Your task to perform on an android device: turn smart compose on in the gmail app Image 0: 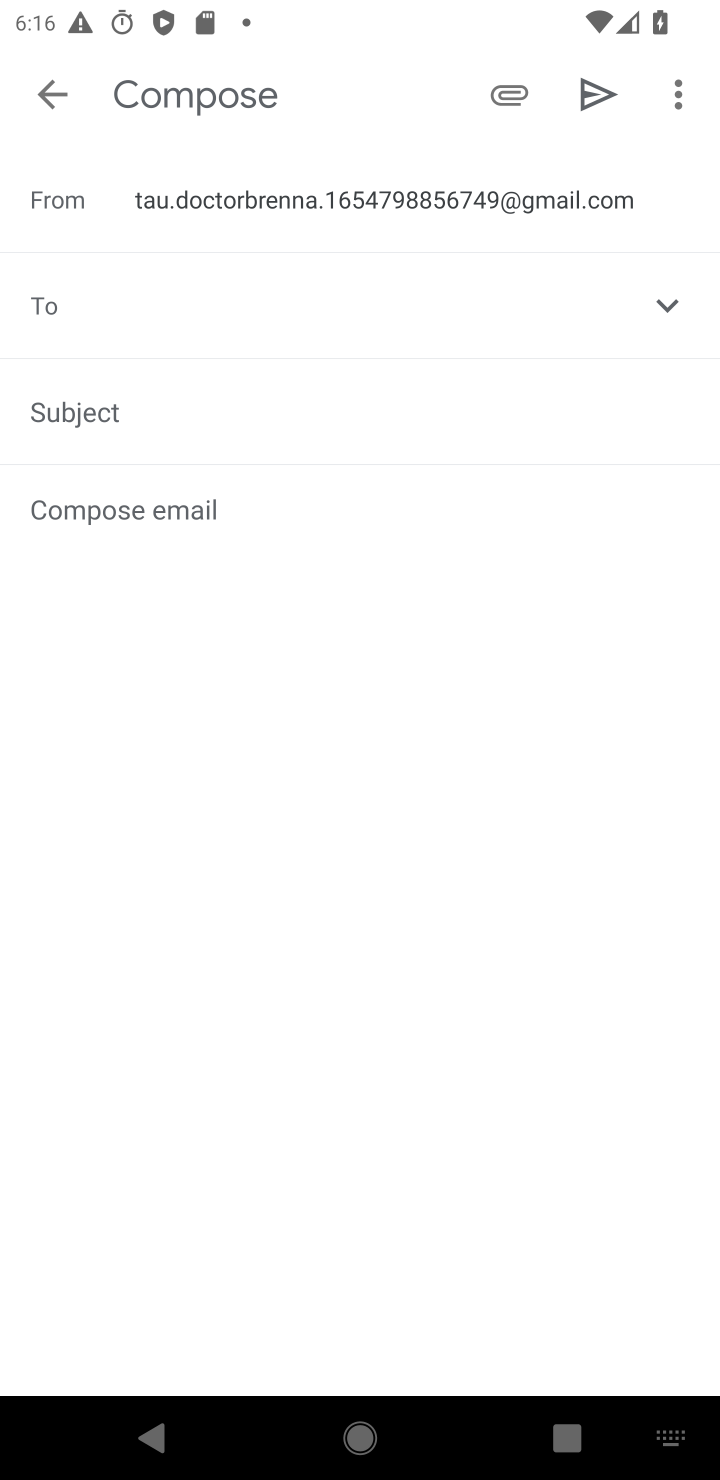
Step 0: press home button
Your task to perform on an android device: turn smart compose on in the gmail app Image 1: 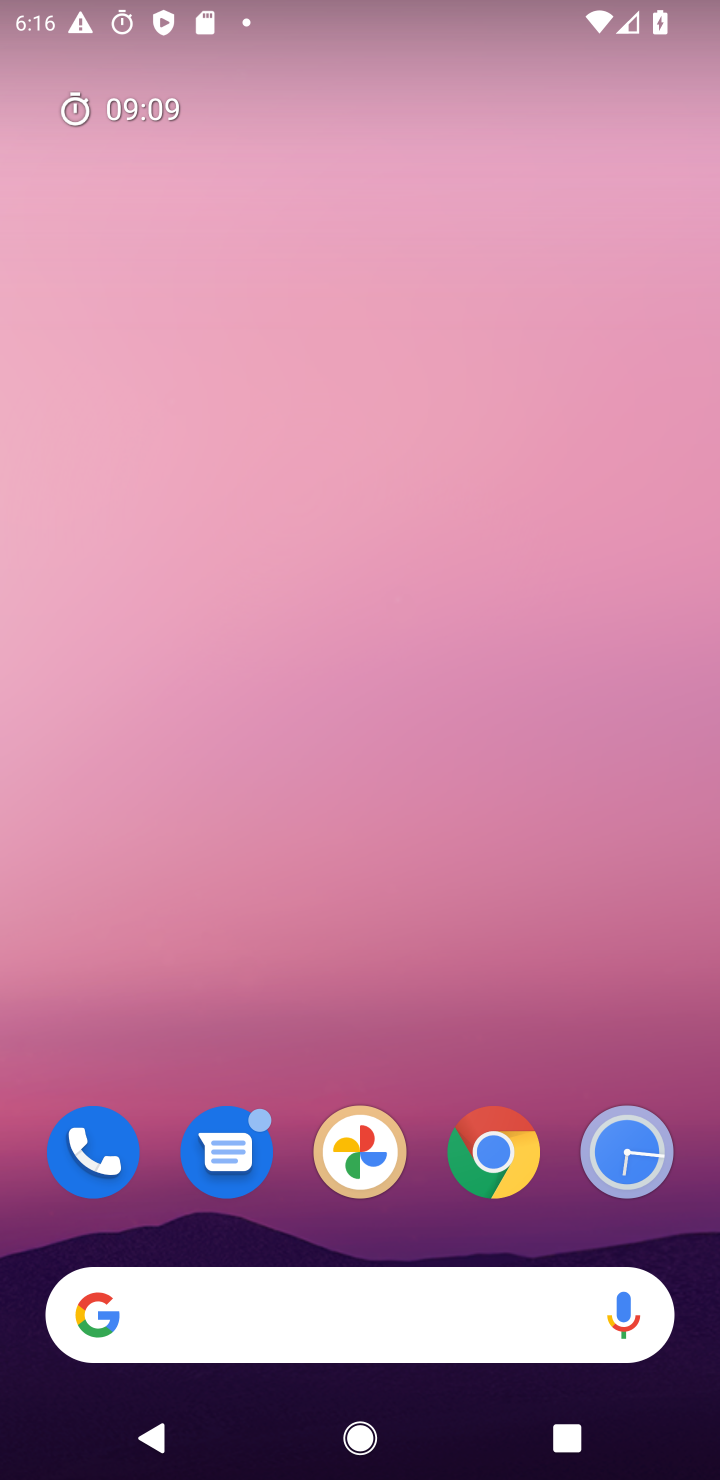
Step 1: drag from (491, 907) to (525, 29)
Your task to perform on an android device: turn smart compose on in the gmail app Image 2: 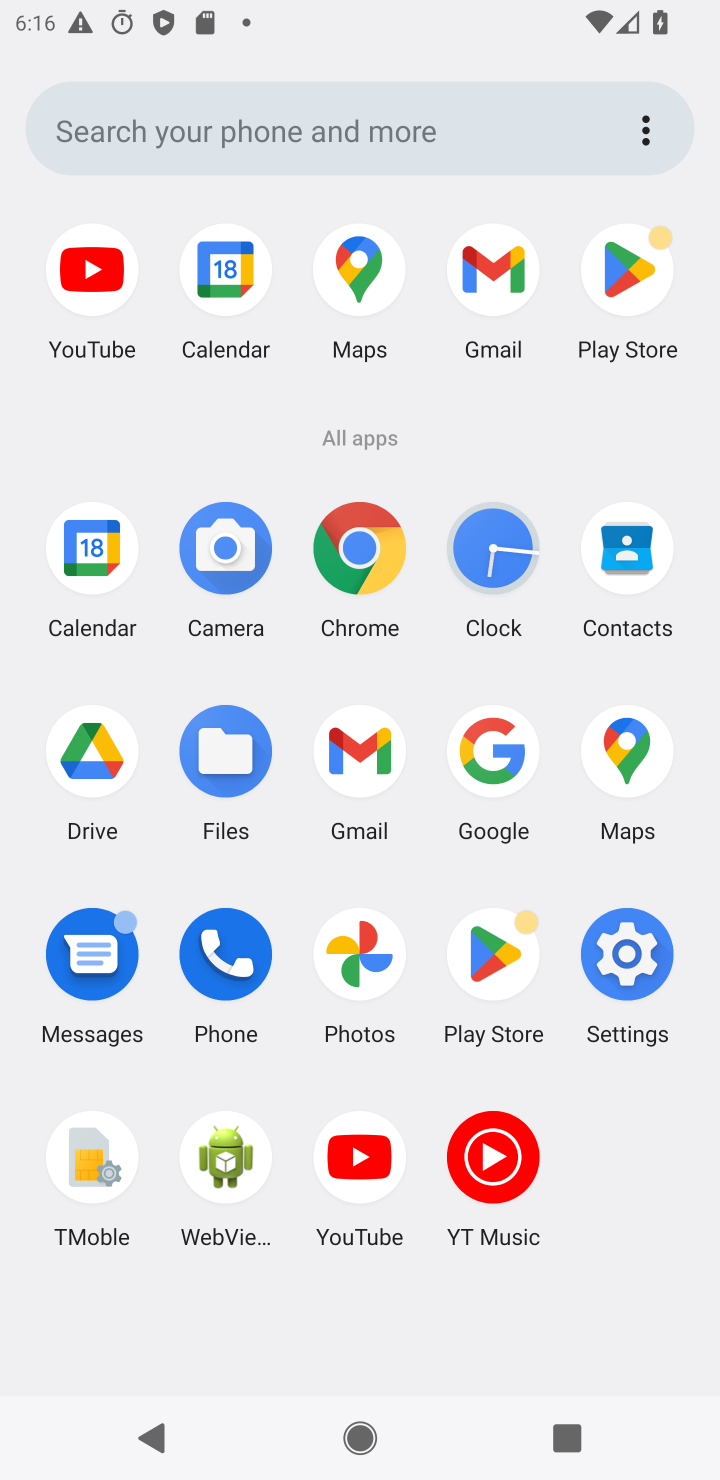
Step 2: click (353, 759)
Your task to perform on an android device: turn smart compose on in the gmail app Image 3: 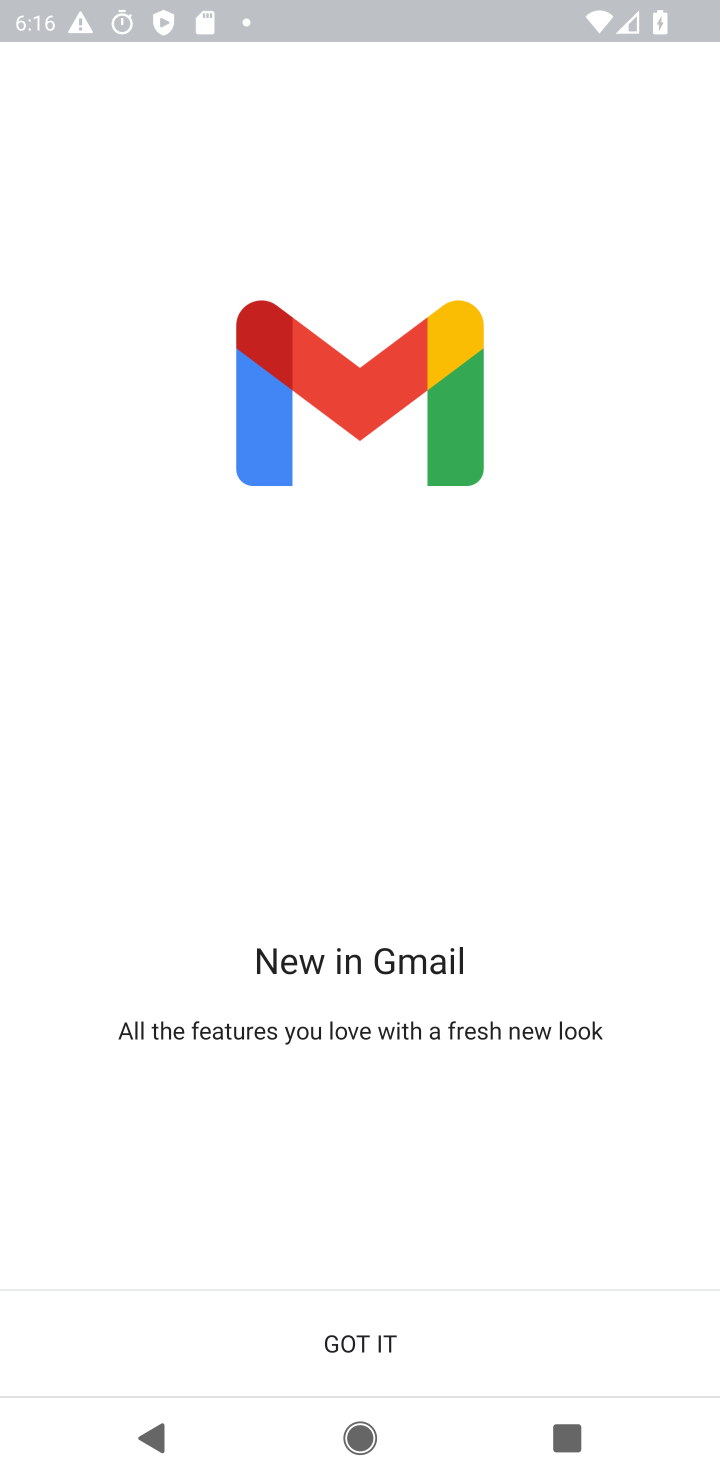
Step 3: click (343, 1334)
Your task to perform on an android device: turn smart compose on in the gmail app Image 4: 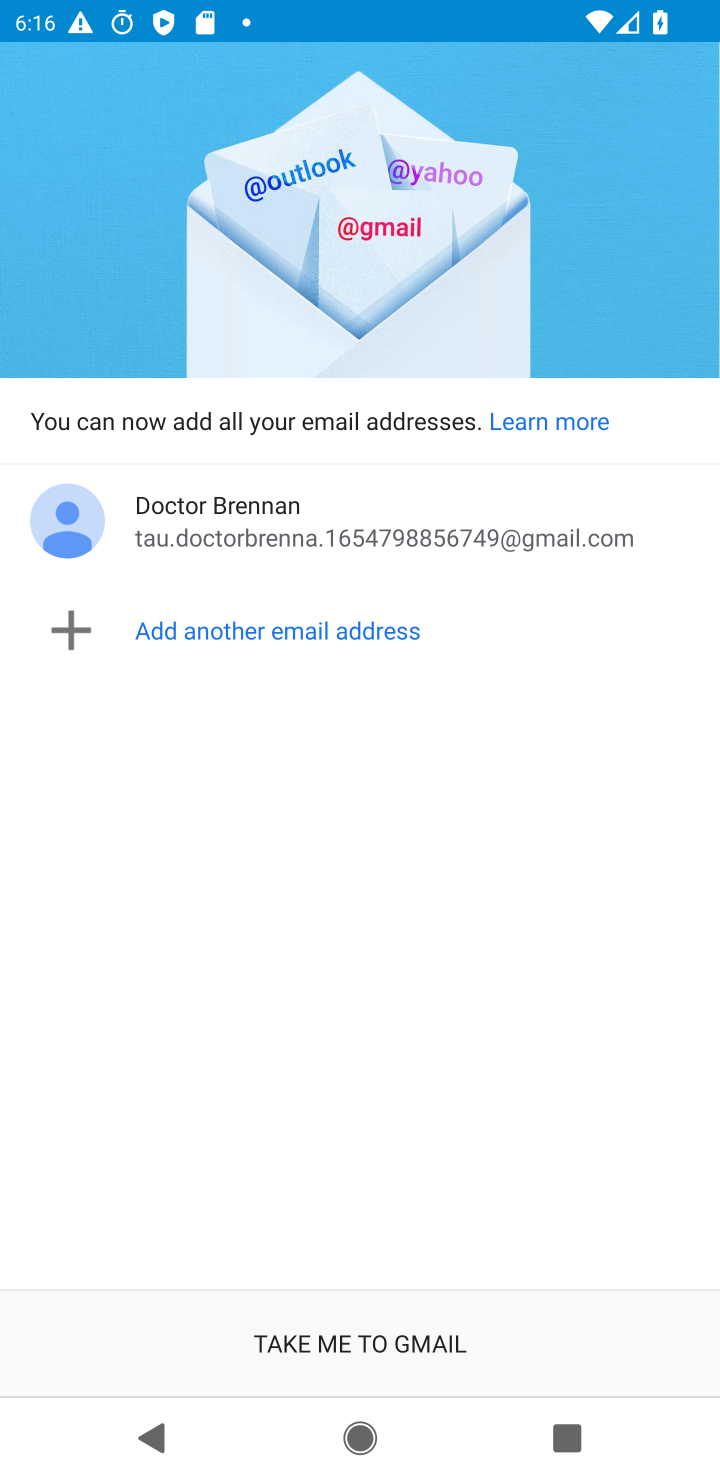
Step 4: click (343, 1334)
Your task to perform on an android device: turn smart compose on in the gmail app Image 5: 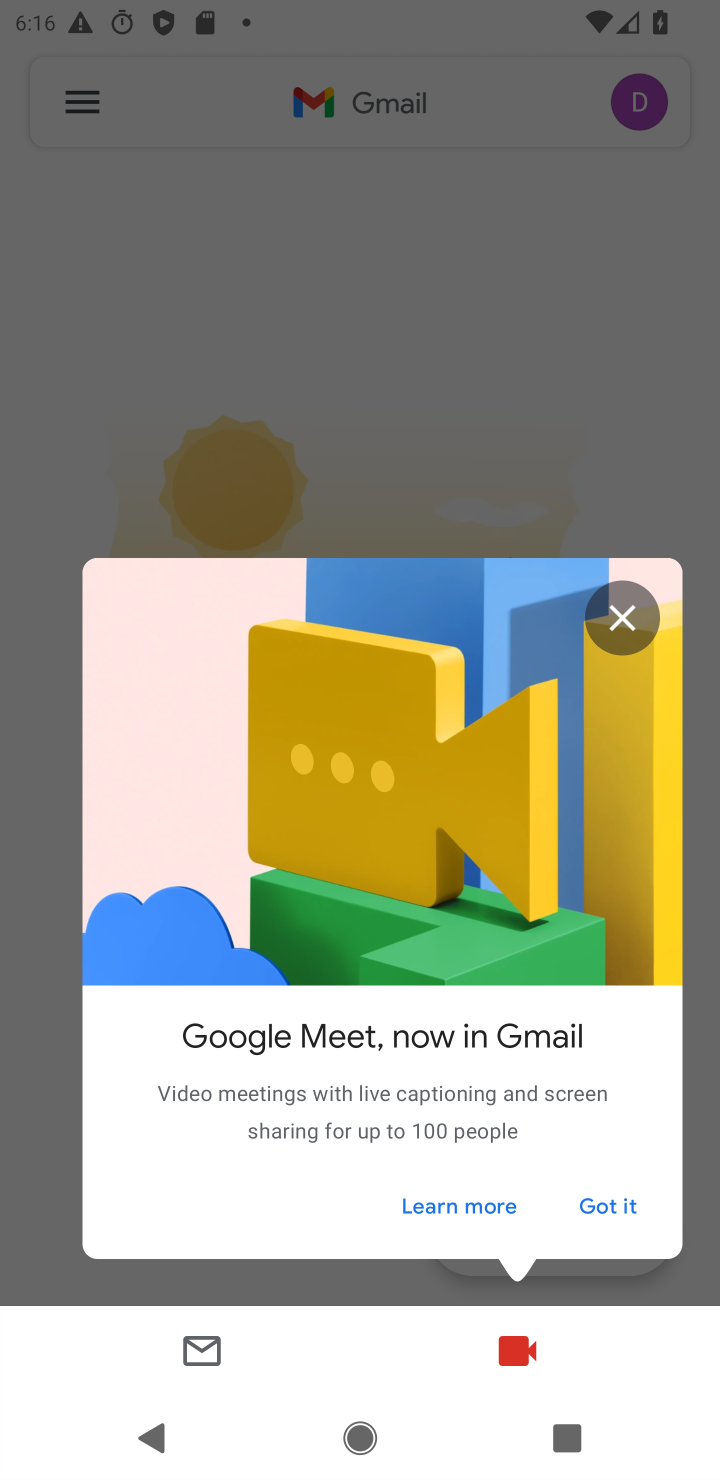
Step 5: click (633, 618)
Your task to perform on an android device: turn smart compose on in the gmail app Image 6: 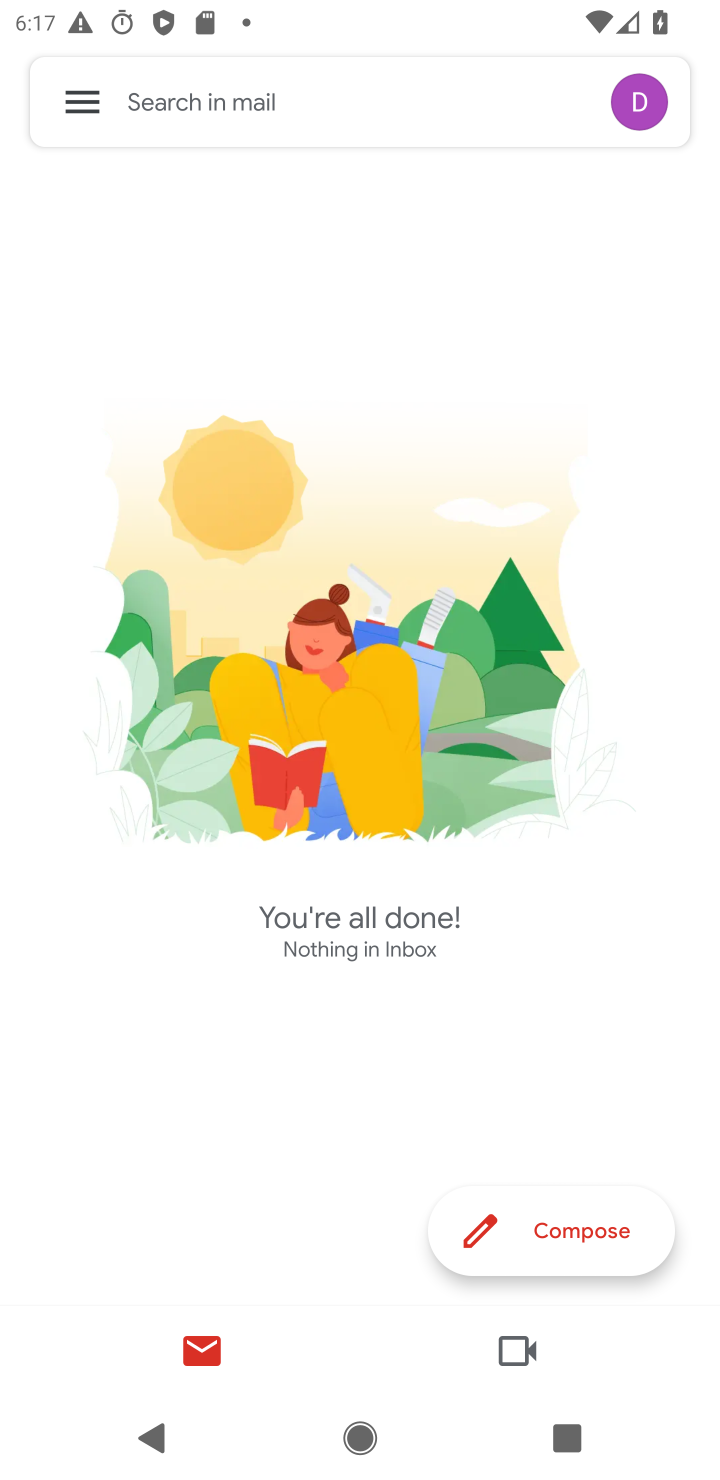
Step 6: click (83, 101)
Your task to perform on an android device: turn smart compose on in the gmail app Image 7: 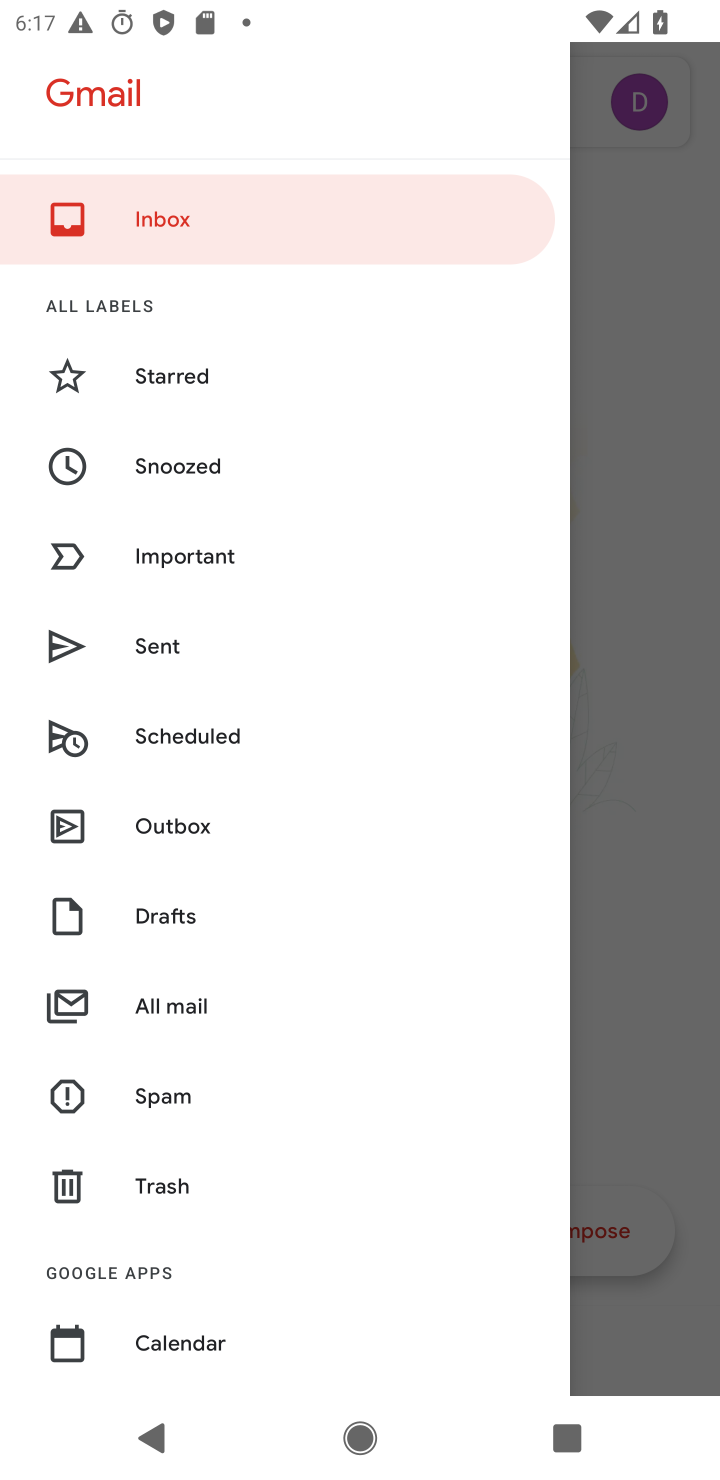
Step 7: drag from (278, 1225) to (380, 199)
Your task to perform on an android device: turn smart compose on in the gmail app Image 8: 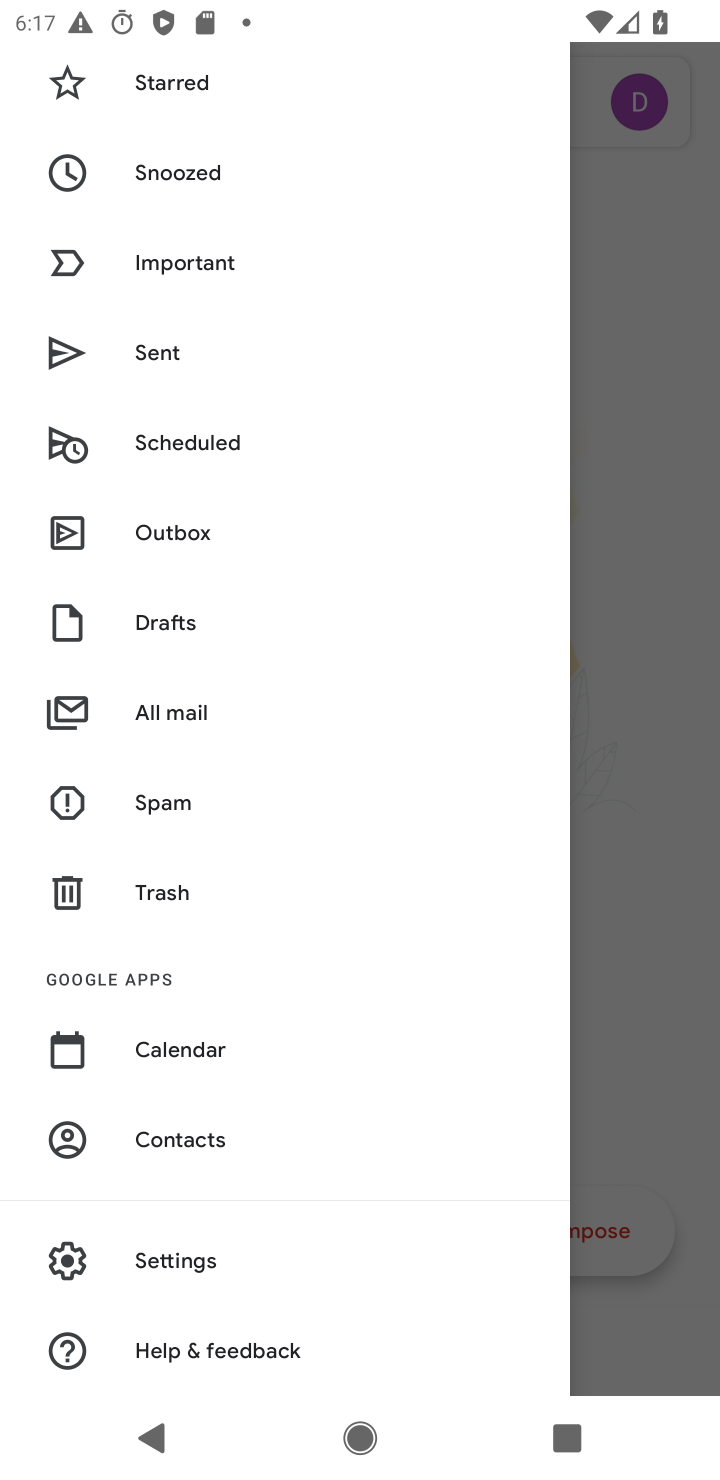
Step 8: click (183, 1244)
Your task to perform on an android device: turn smart compose on in the gmail app Image 9: 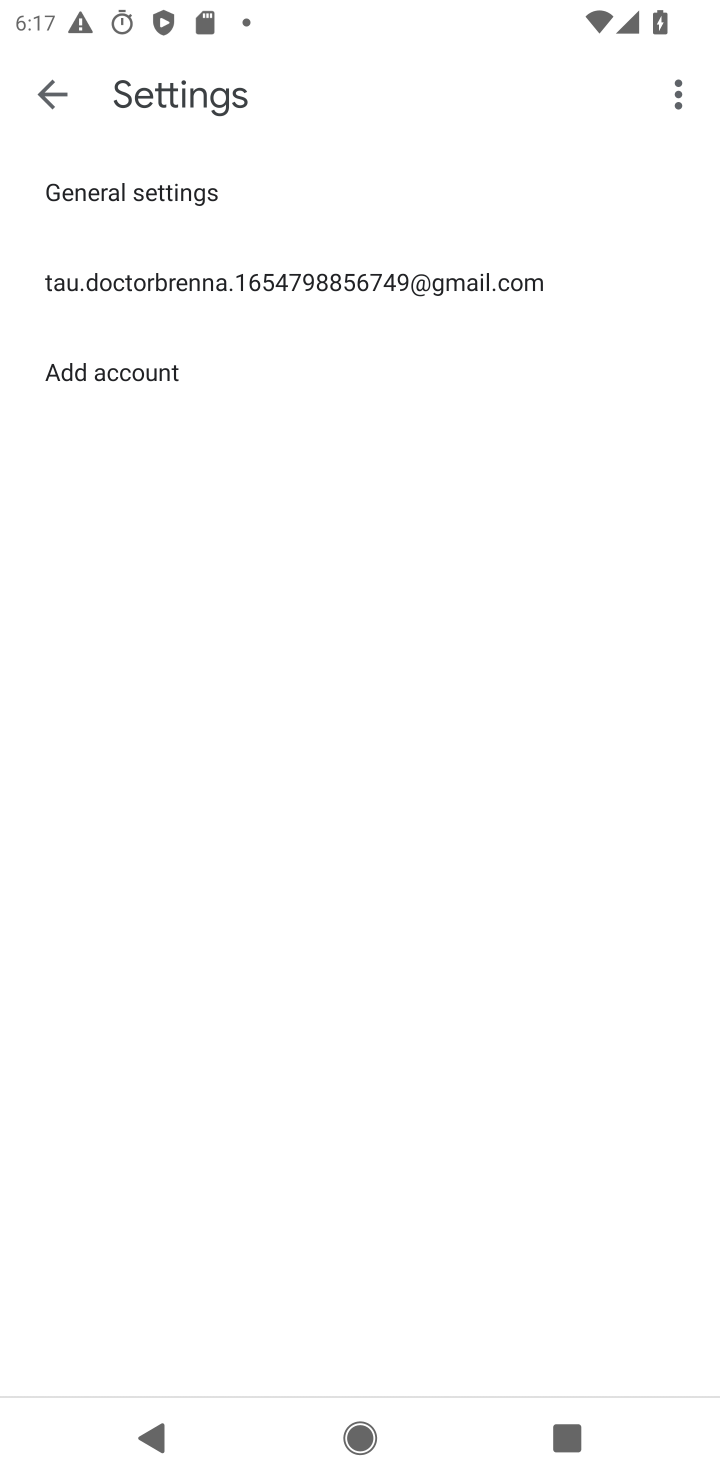
Step 9: click (267, 274)
Your task to perform on an android device: turn smart compose on in the gmail app Image 10: 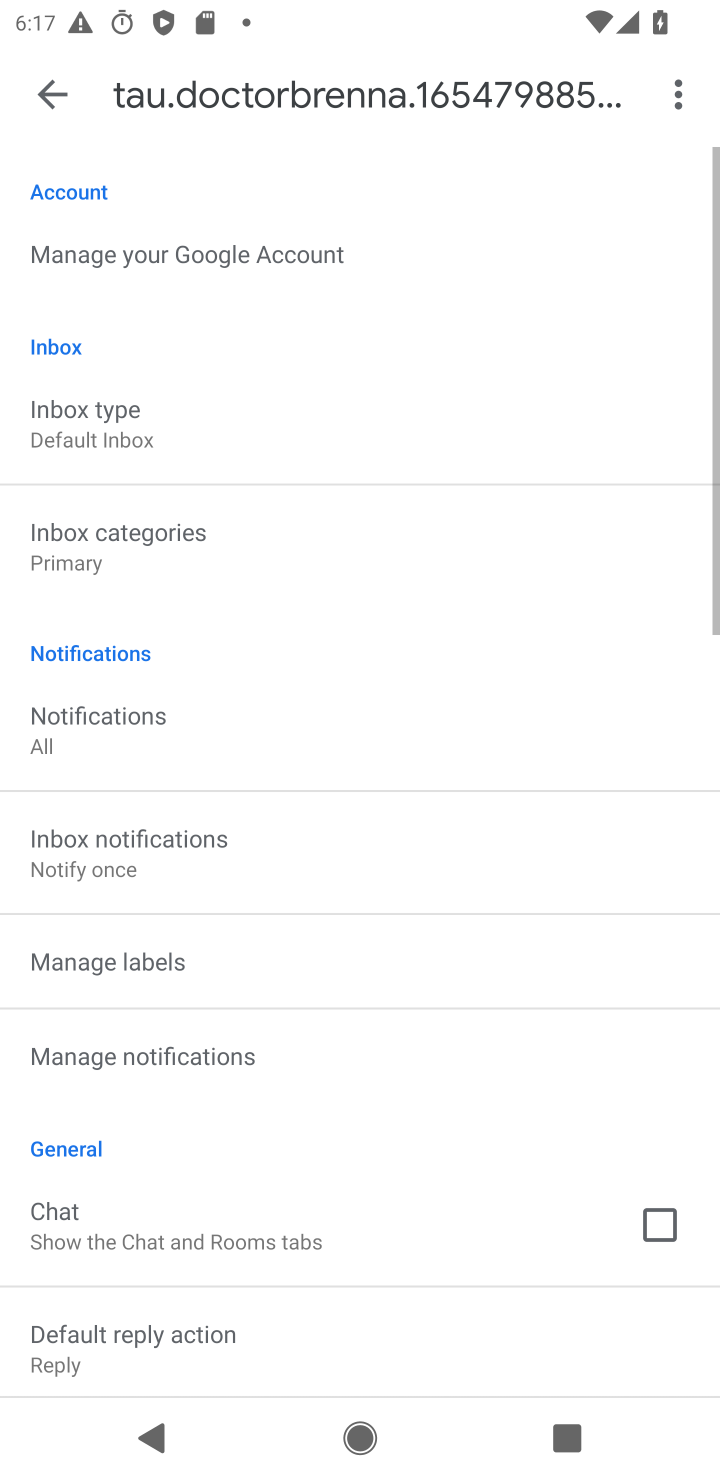
Step 10: task complete